Your task to perform on an android device: Search for razer deathadder on newegg, select the first entry, add it to the cart, then select checkout. Image 0: 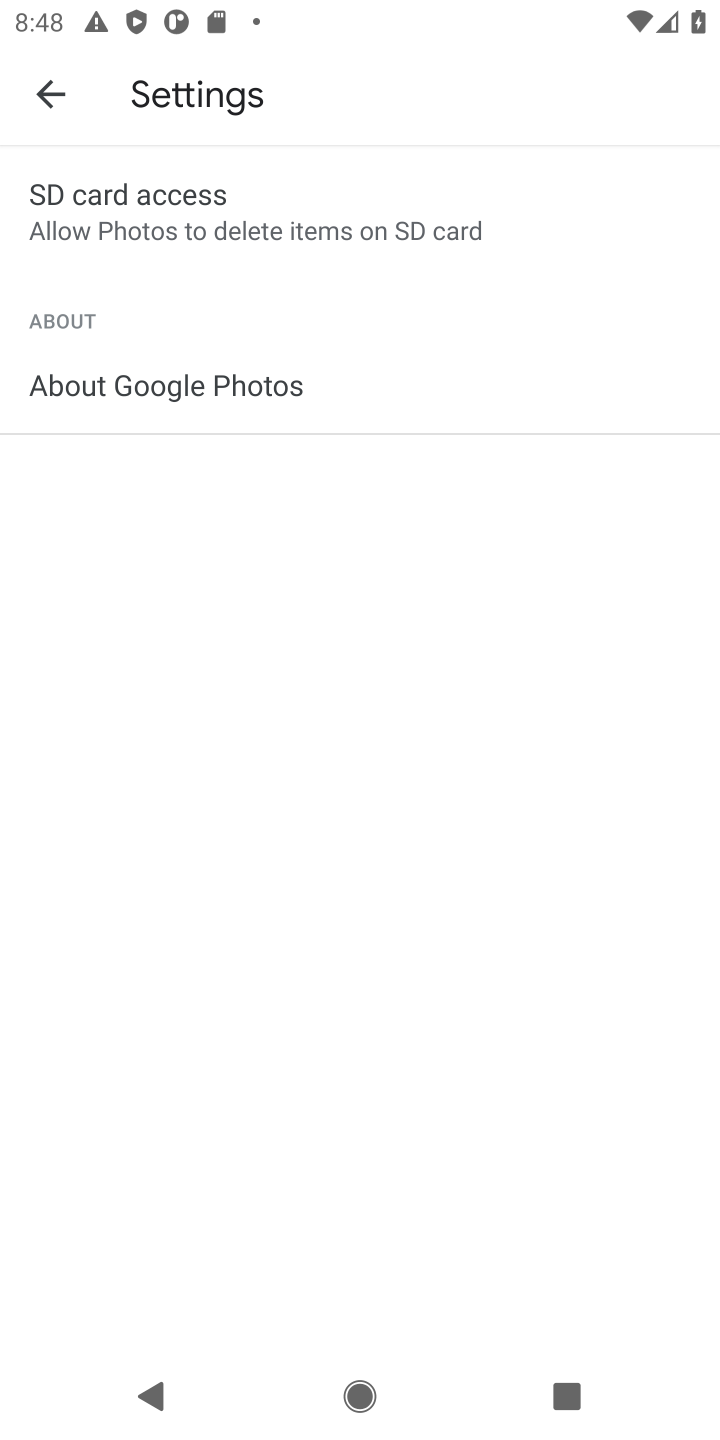
Step 0: press home button
Your task to perform on an android device: Search for razer deathadder on newegg, select the first entry, add it to the cart, then select checkout. Image 1: 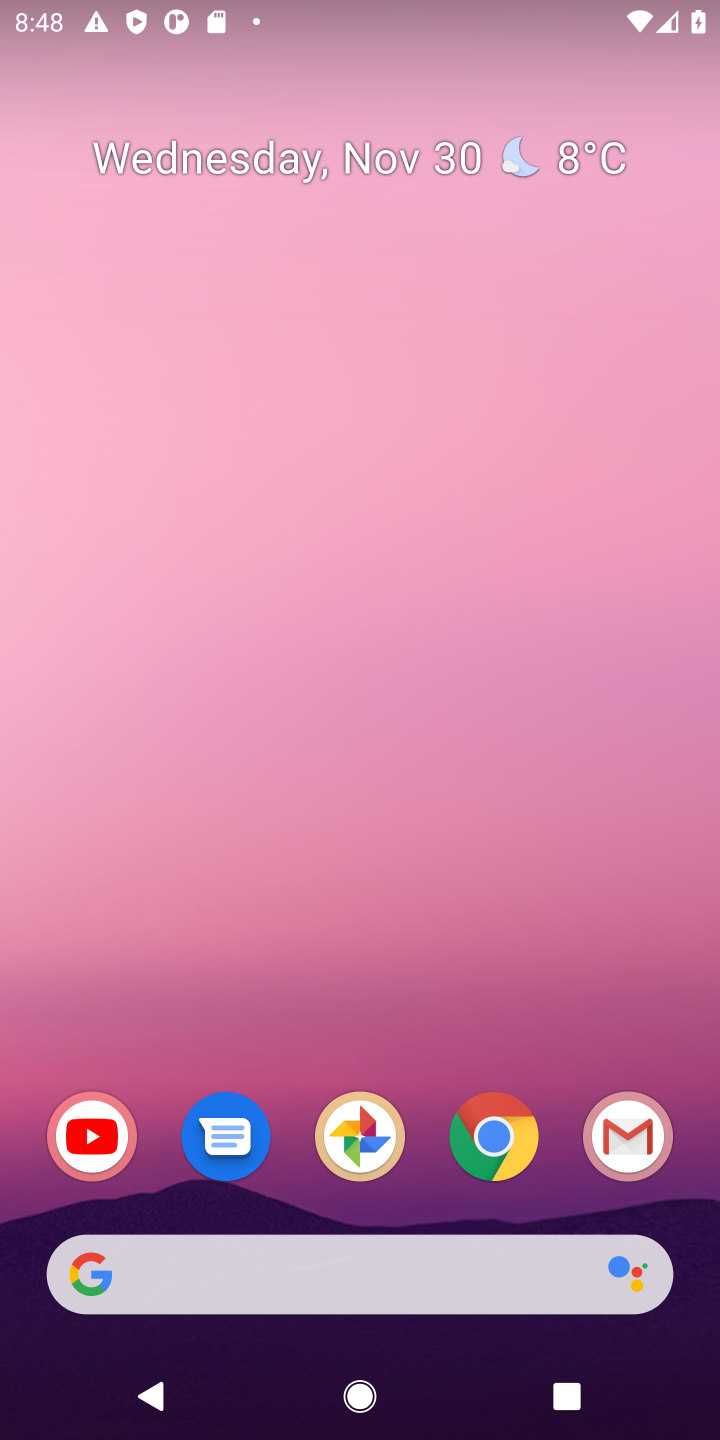
Step 1: click (491, 1133)
Your task to perform on an android device: Search for razer deathadder on newegg, select the first entry, add it to the cart, then select checkout. Image 2: 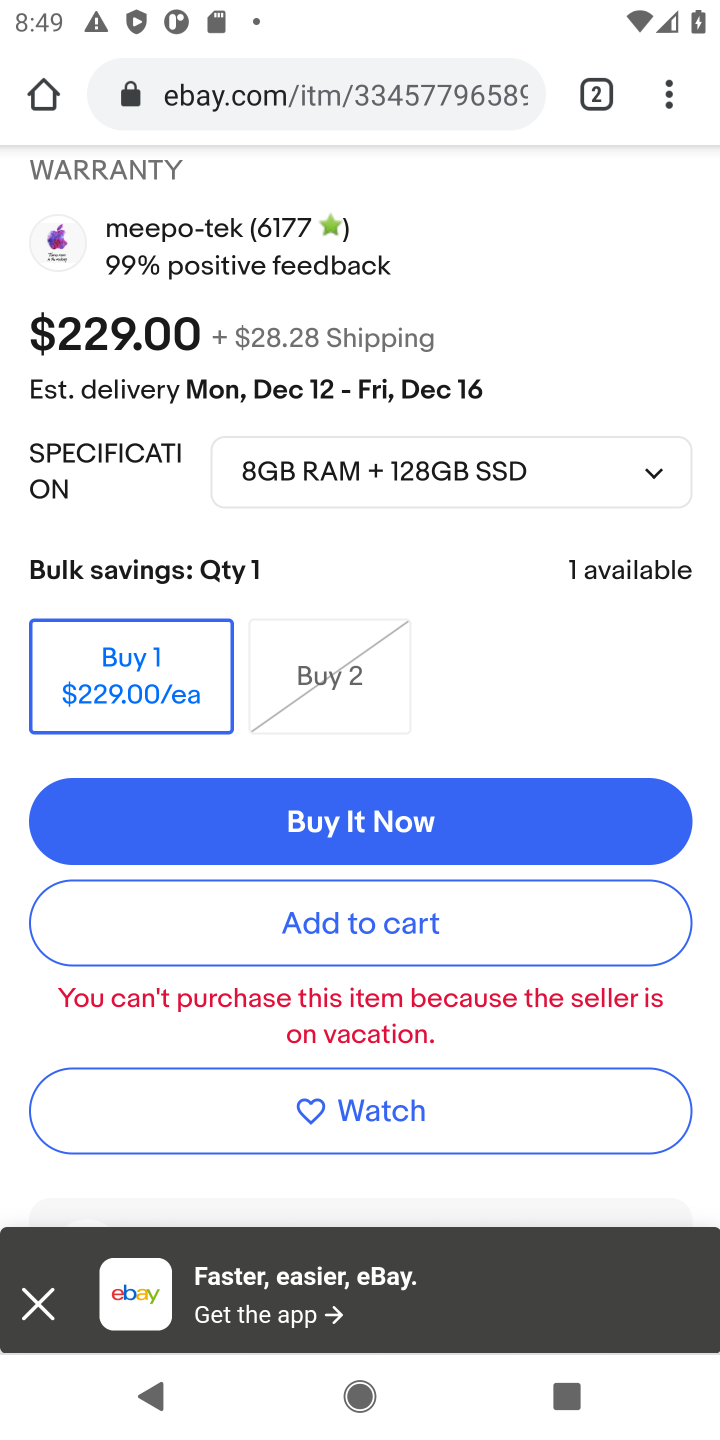
Step 2: click (328, 95)
Your task to perform on an android device: Search for razer deathadder on newegg, select the first entry, add it to the cart, then select checkout. Image 3: 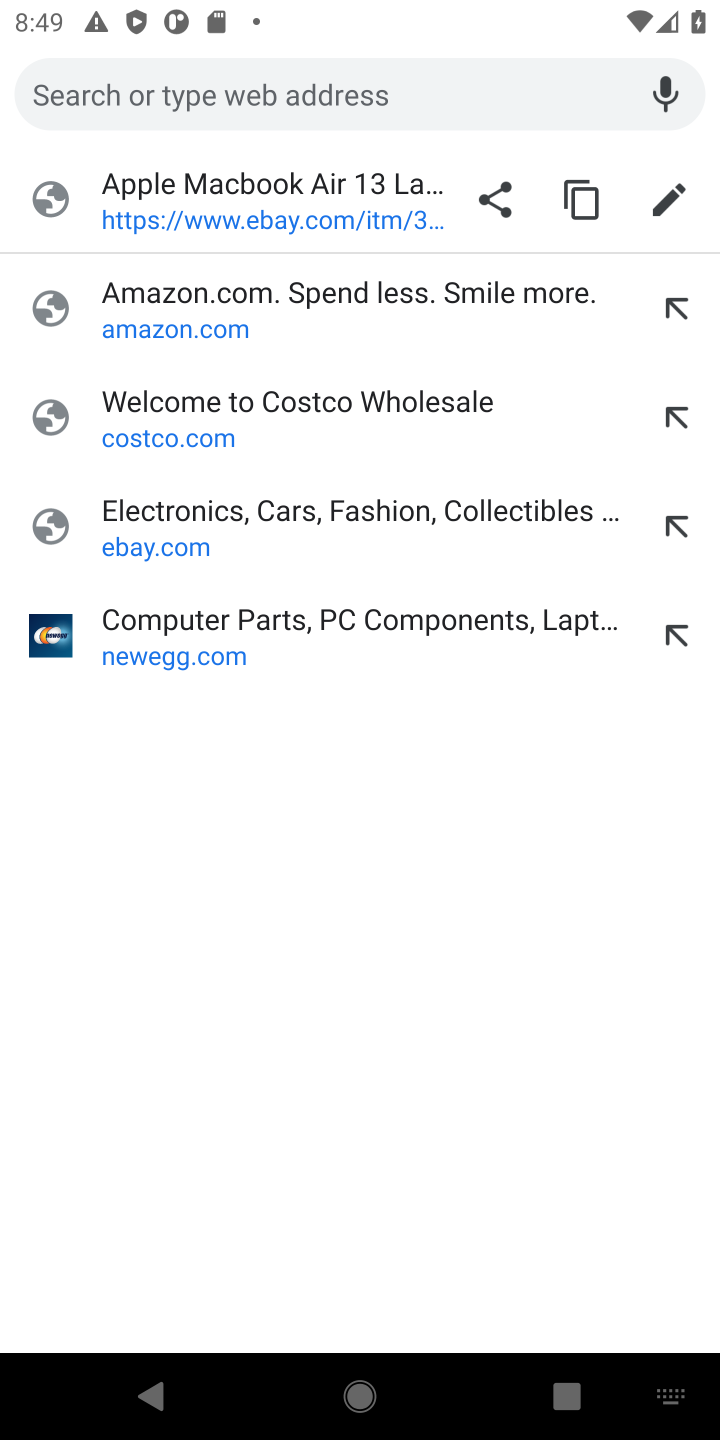
Step 3: click (158, 632)
Your task to perform on an android device: Search for razer deathadder on newegg, select the first entry, add it to the cart, then select checkout. Image 4: 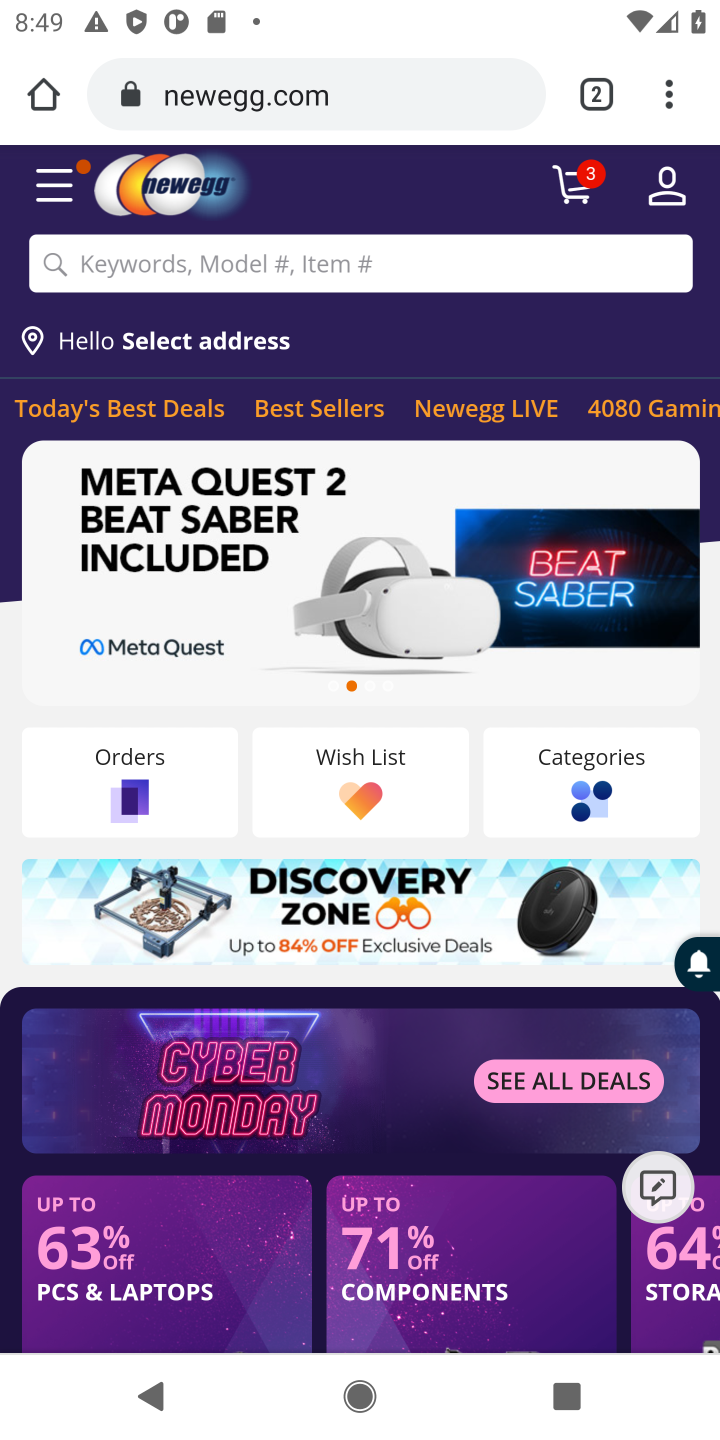
Step 4: click (138, 264)
Your task to perform on an android device: Search for razer deathadder on newegg, select the first entry, add it to the cart, then select checkout. Image 5: 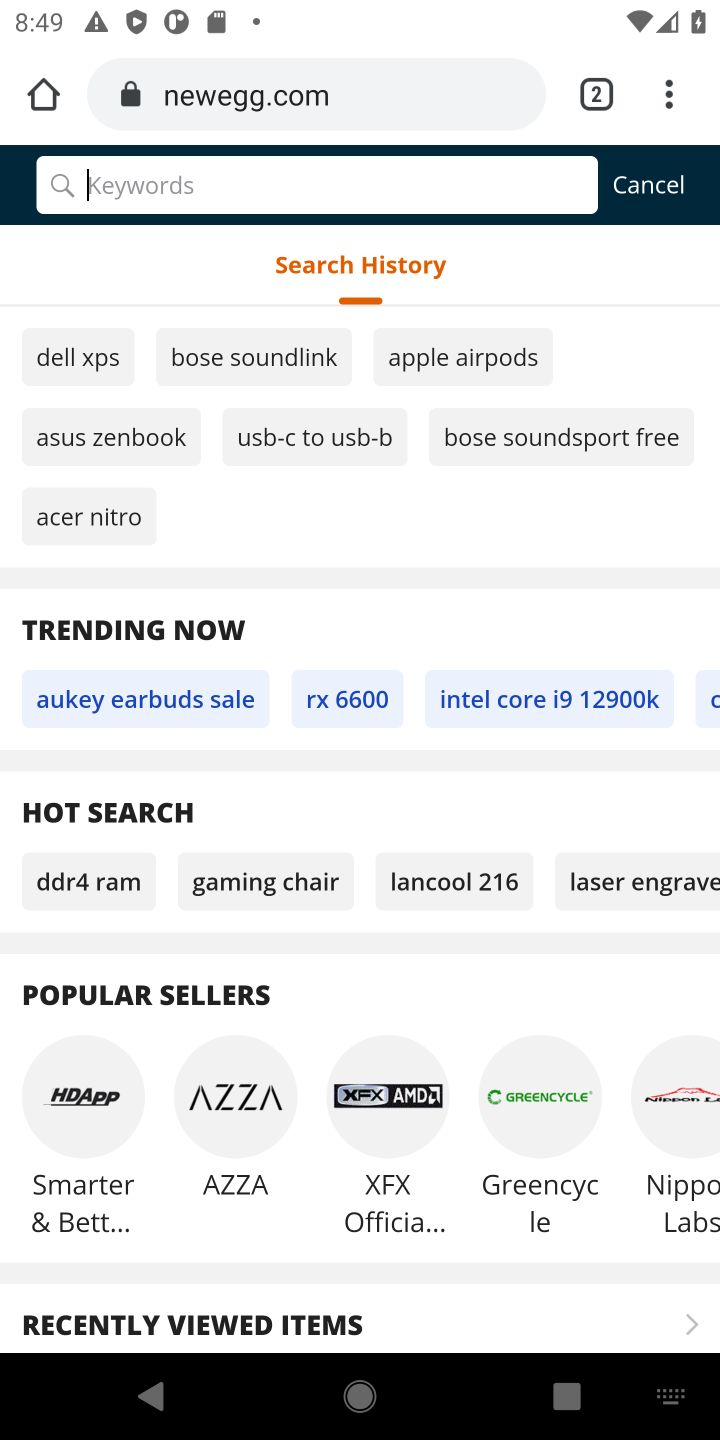
Step 5: type "razer deathadder"
Your task to perform on an android device: Search for razer deathadder on newegg, select the first entry, add it to the cart, then select checkout. Image 6: 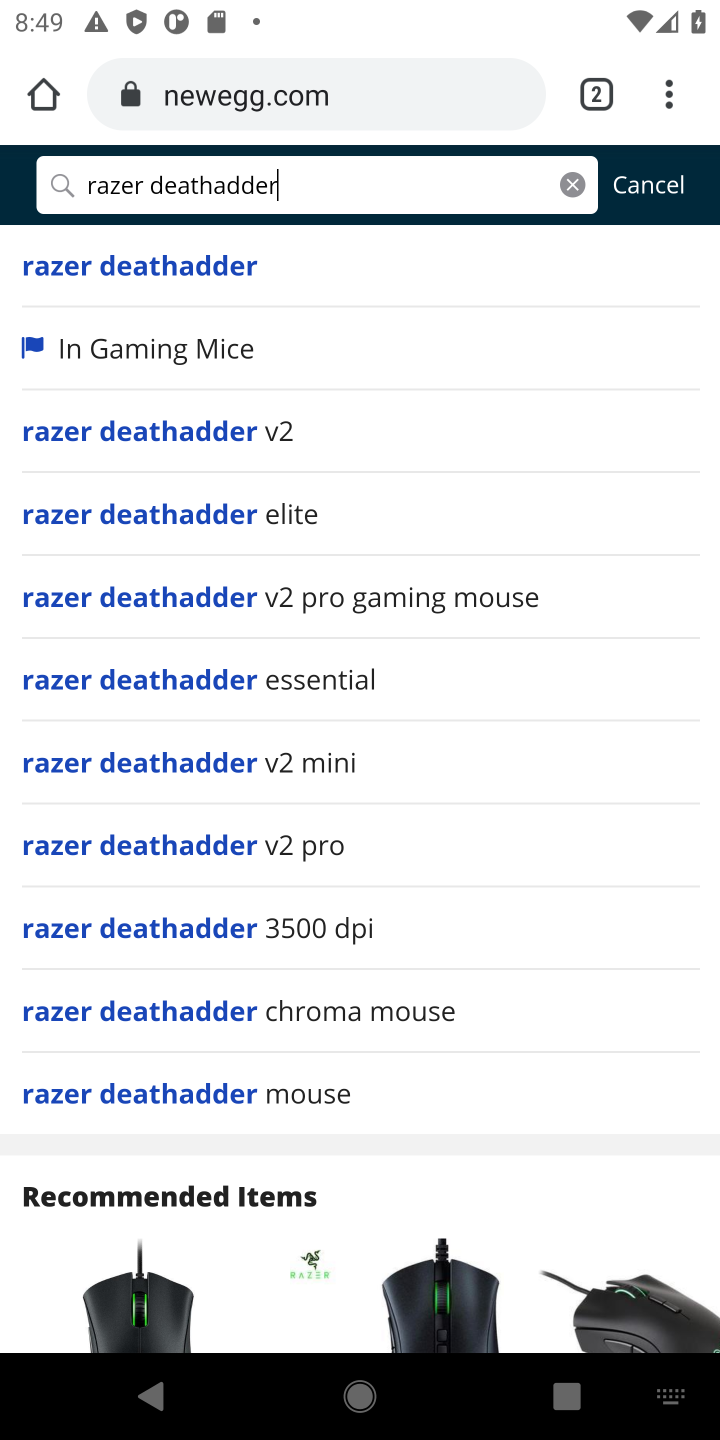
Step 6: click (127, 266)
Your task to perform on an android device: Search for razer deathadder on newegg, select the first entry, add it to the cart, then select checkout. Image 7: 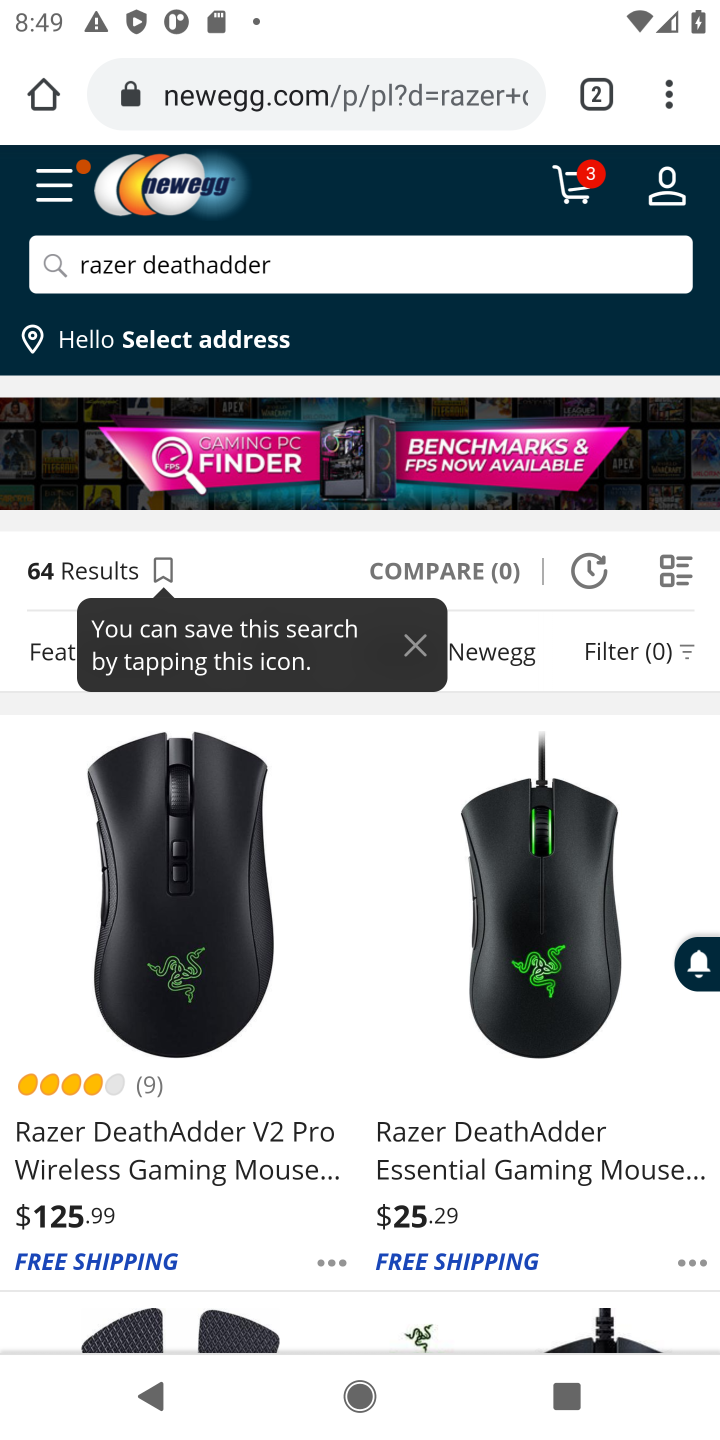
Step 7: click (170, 1030)
Your task to perform on an android device: Search for razer deathadder on newegg, select the first entry, add it to the cart, then select checkout. Image 8: 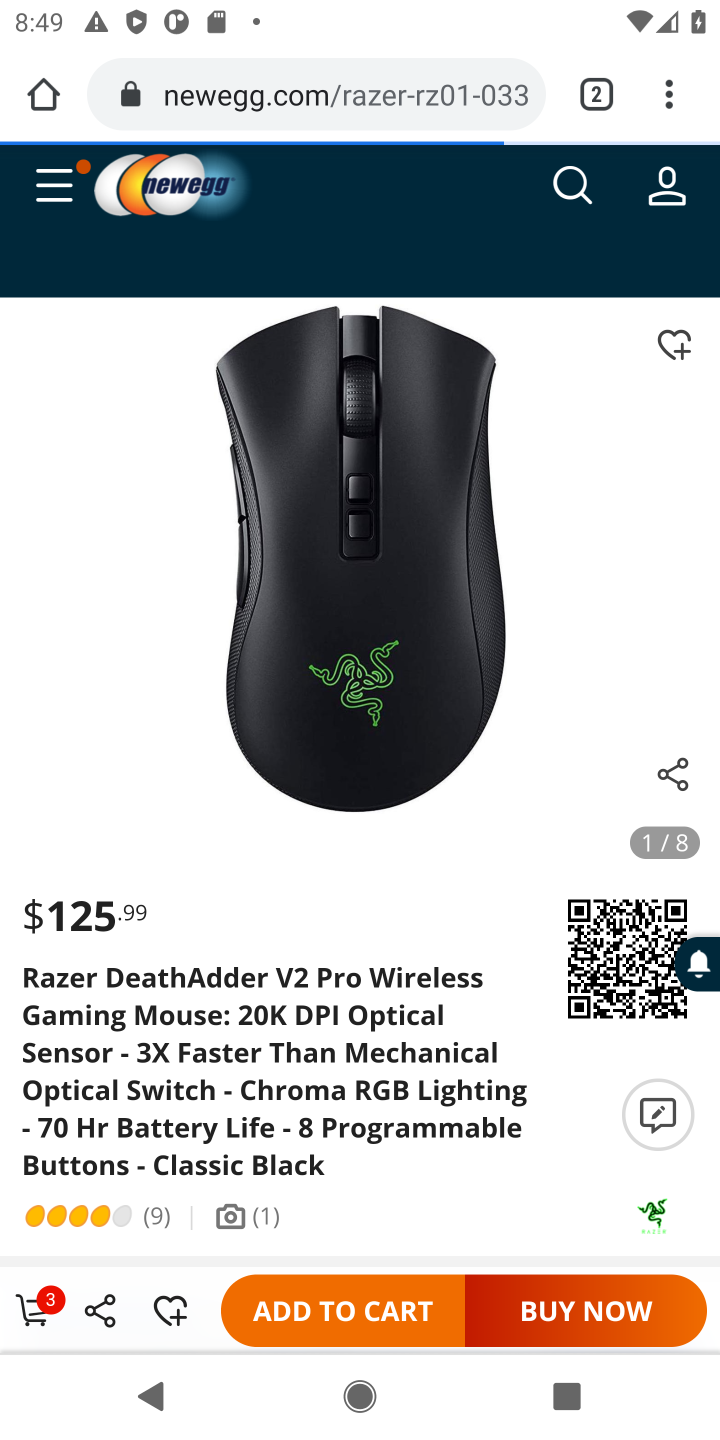
Step 8: click (319, 1309)
Your task to perform on an android device: Search for razer deathadder on newegg, select the first entry, add it to the cart, then select checkout. Image 9: 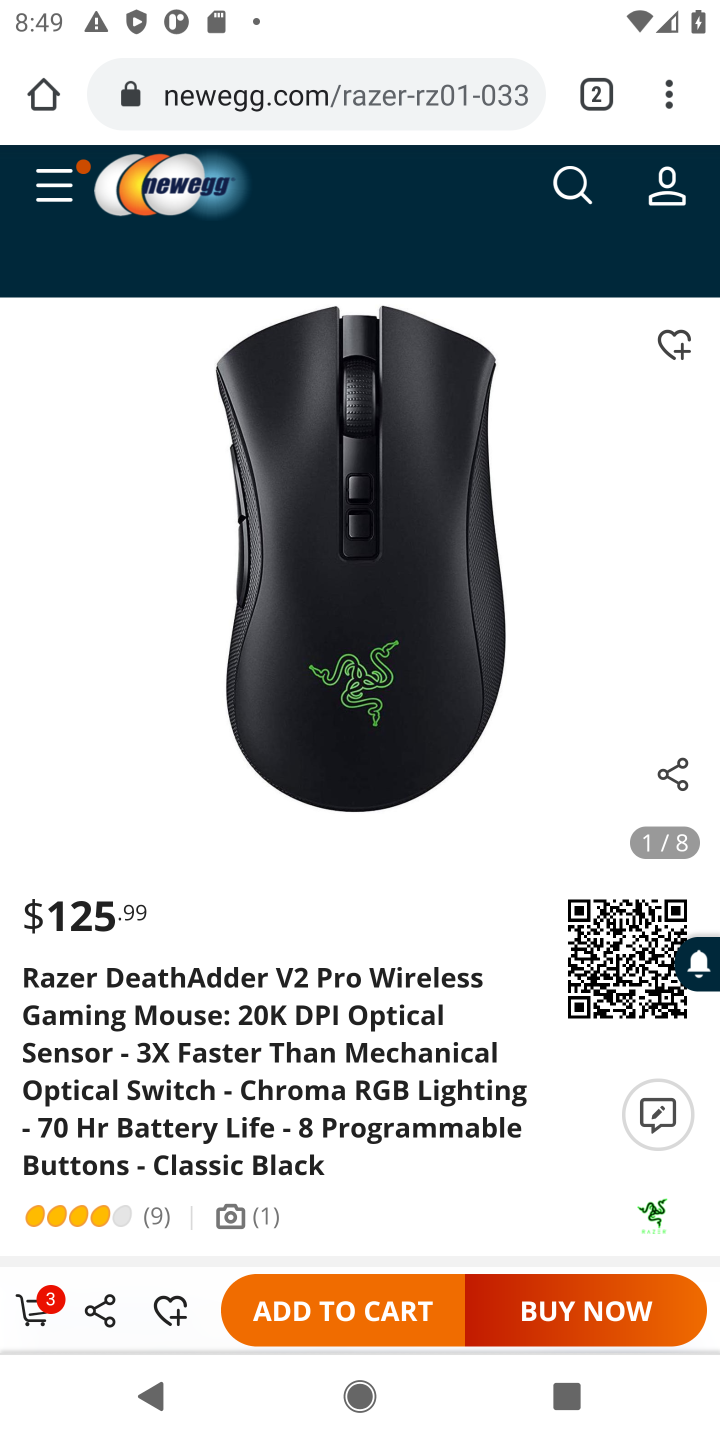
Step 9: click (319, 1309)
Your task to perform on an android device: Search for razer deathadder on newegg, select the first entry, add it to the cart, then select checkout. Image 10: 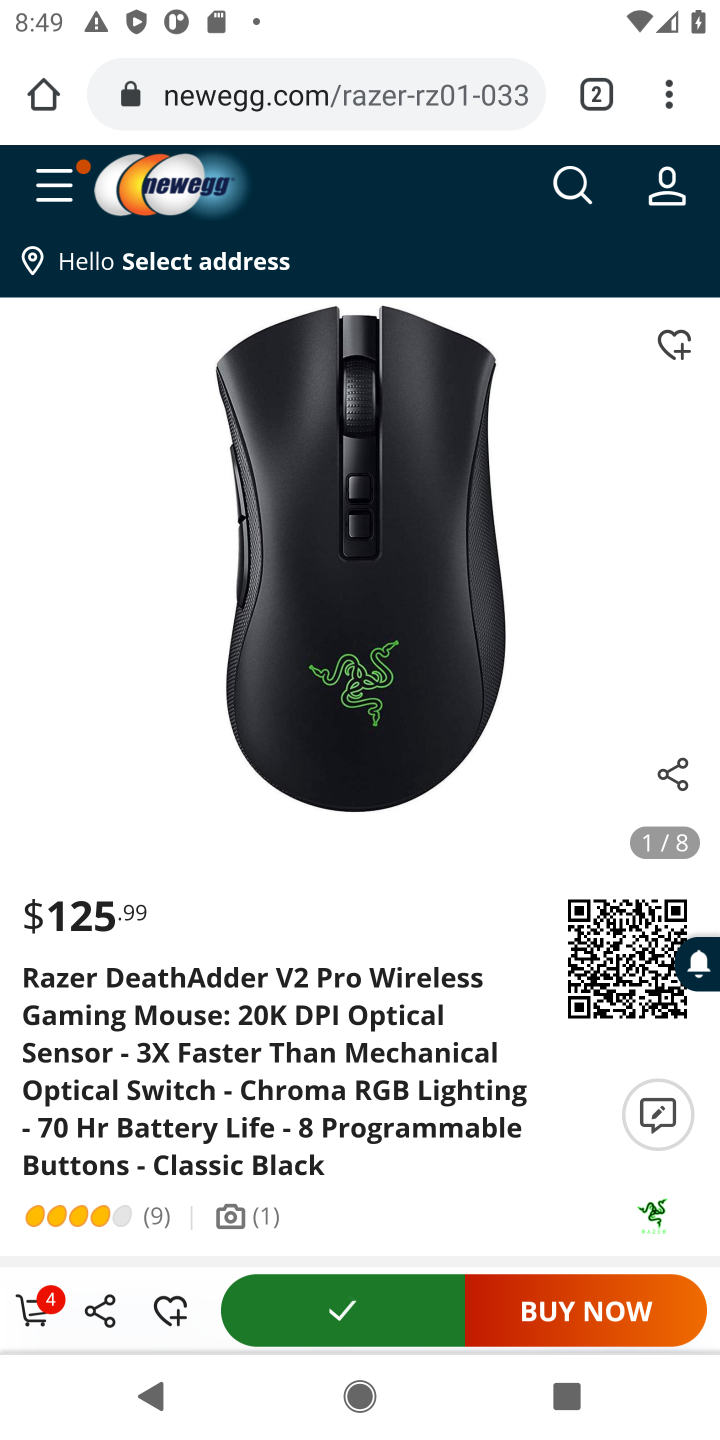
Step 10: click (351, 1297)
Your task to perform on an android device: Search for razer deathadder on newegg, select the first entry, add it to the cart, then select checkout. Image 11: 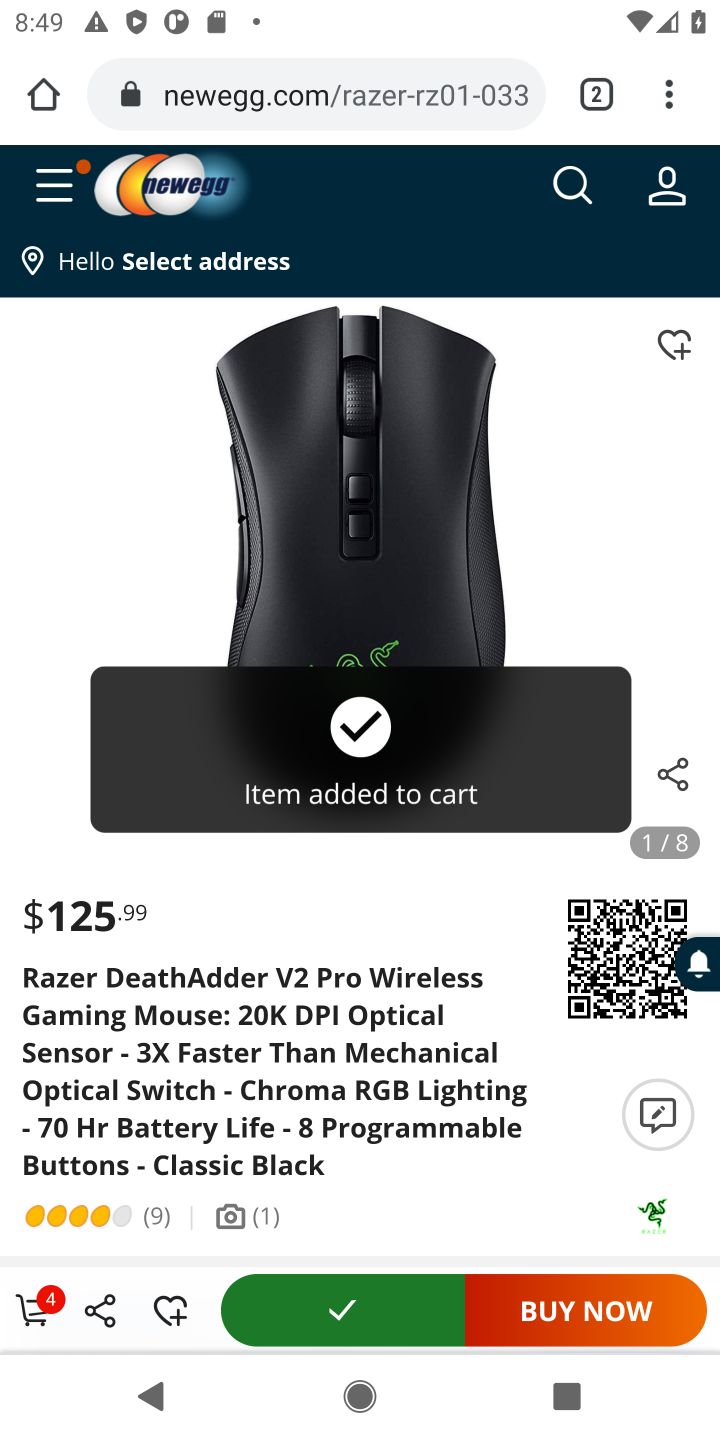
Step 11: click (35, 1311)
Your task to perform on an android device: Search for razer deathadder on newegg, select the first entry, add it to the cart, then select checkout. Image 12: 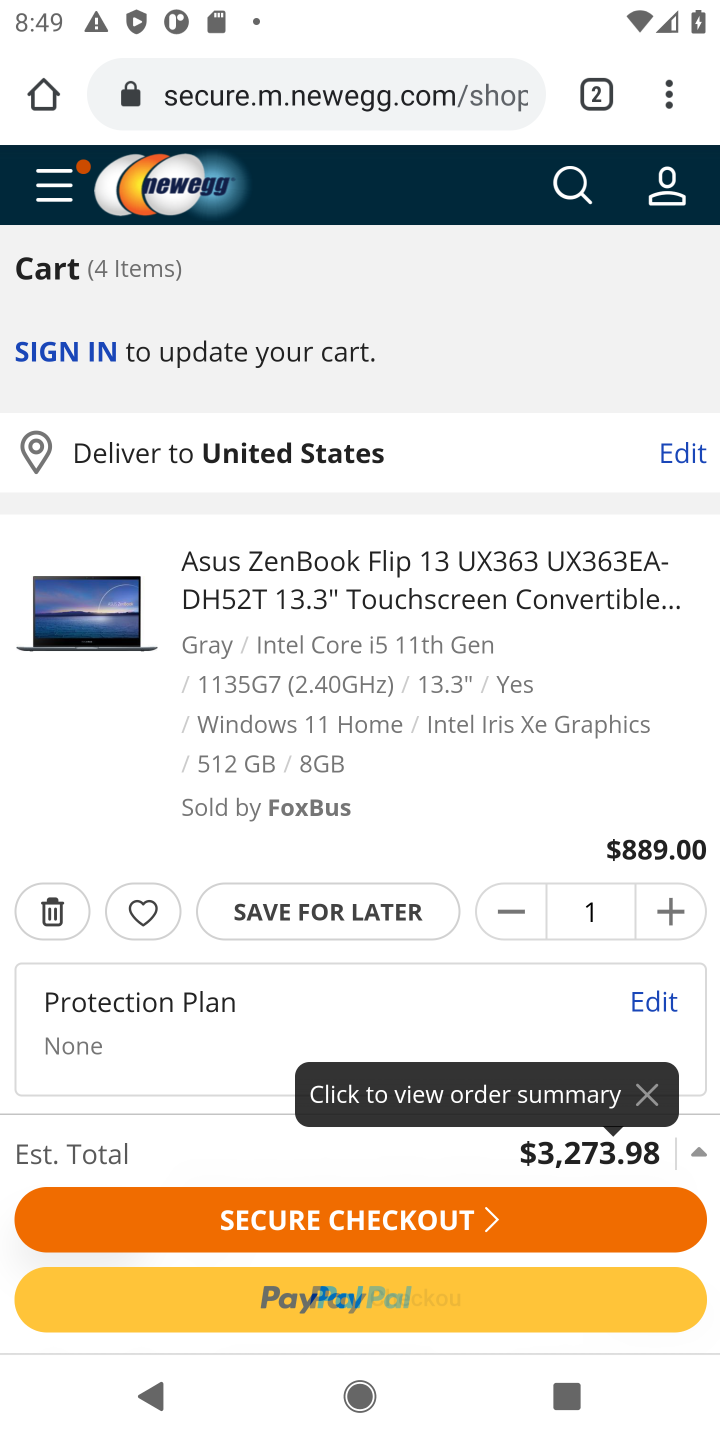
Step 12: click (334, 1225)
Your task to perform on an android device: Search for razer deathadder on newegg, select the first entry, add it to the cart, then select checkout. Image 13: 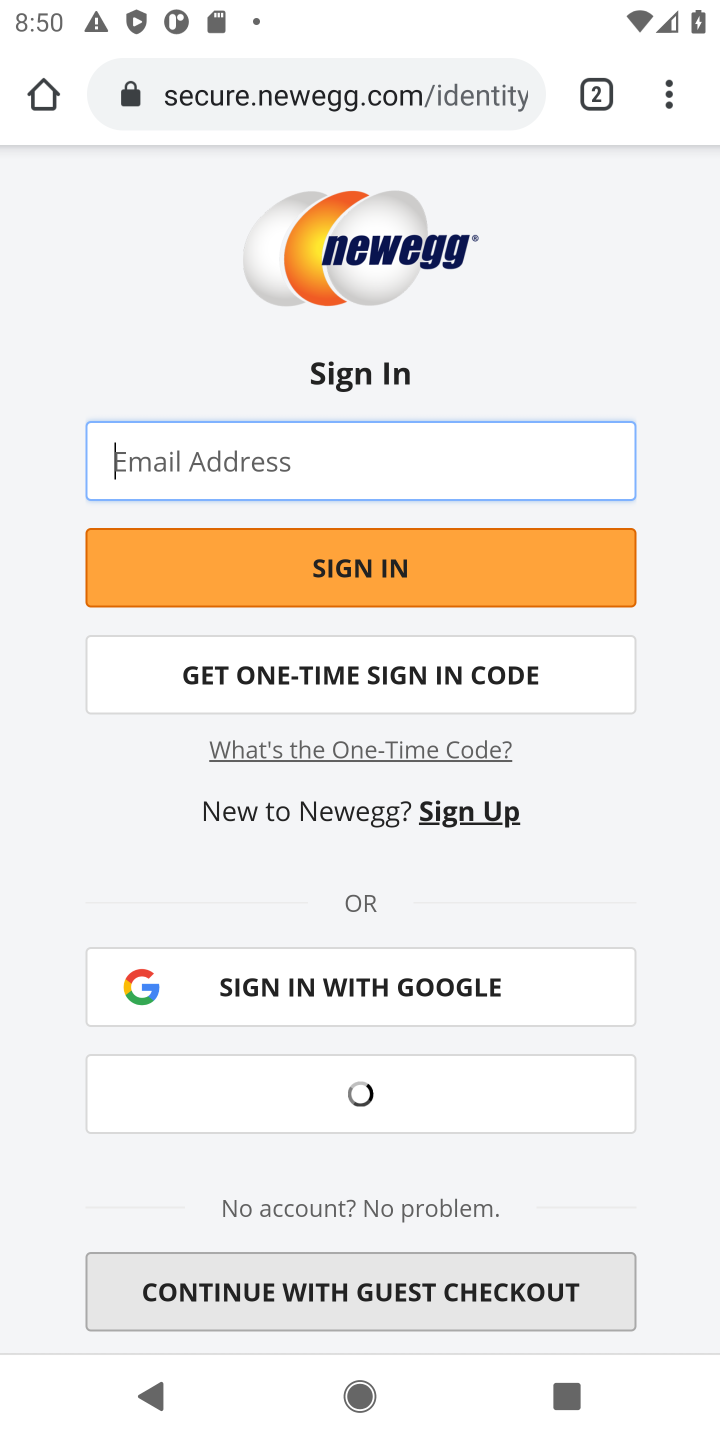
Step 13: task complete